Your task to perform on an android device: Search for bose soundlink mini on walmart, select the first entry, and add it to the cart. Image 0: 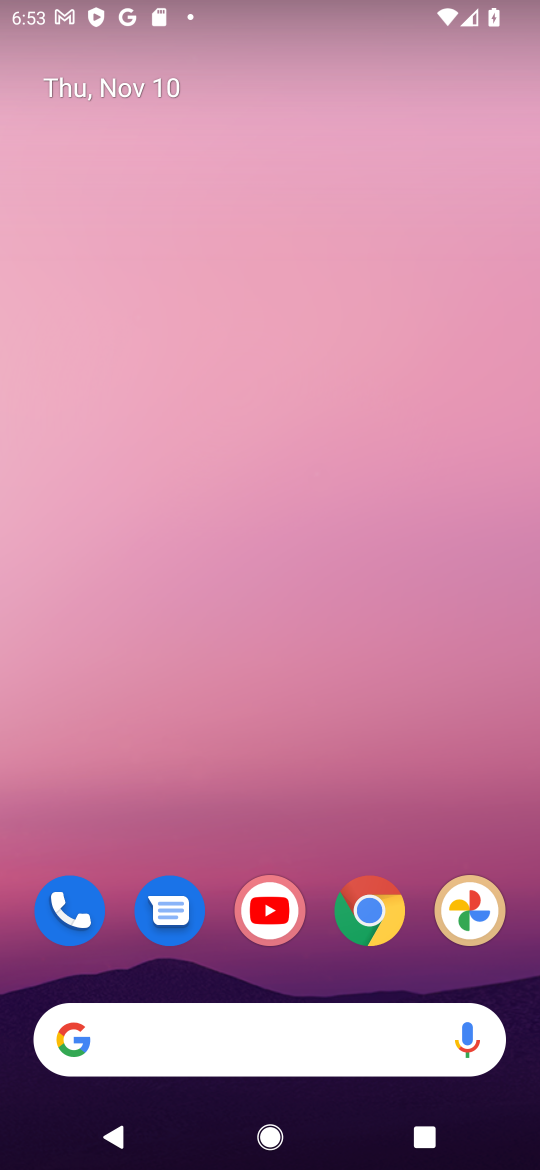
Step 0: click (369, 910)
Your task to perform on an android device: Search for bose soundlink mini on walmart, select the first entry, and add it to the cart. Image 1: 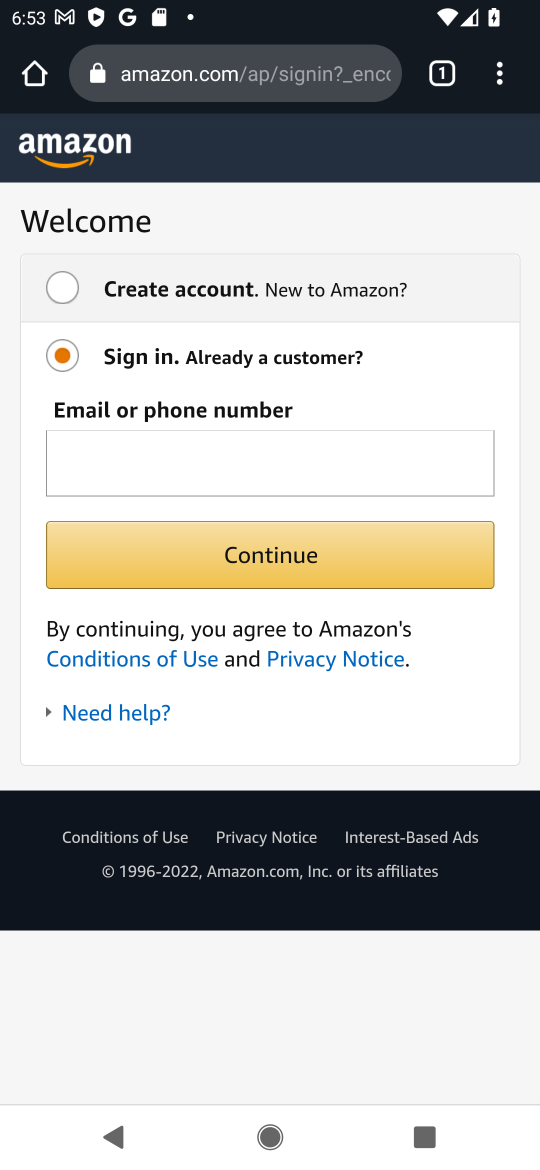
Step 1: click (349, 83)
Your task to perform on an android device: Search for bose soundlink mini on walmart, select the first entry, and add it to the cart. Image 2: 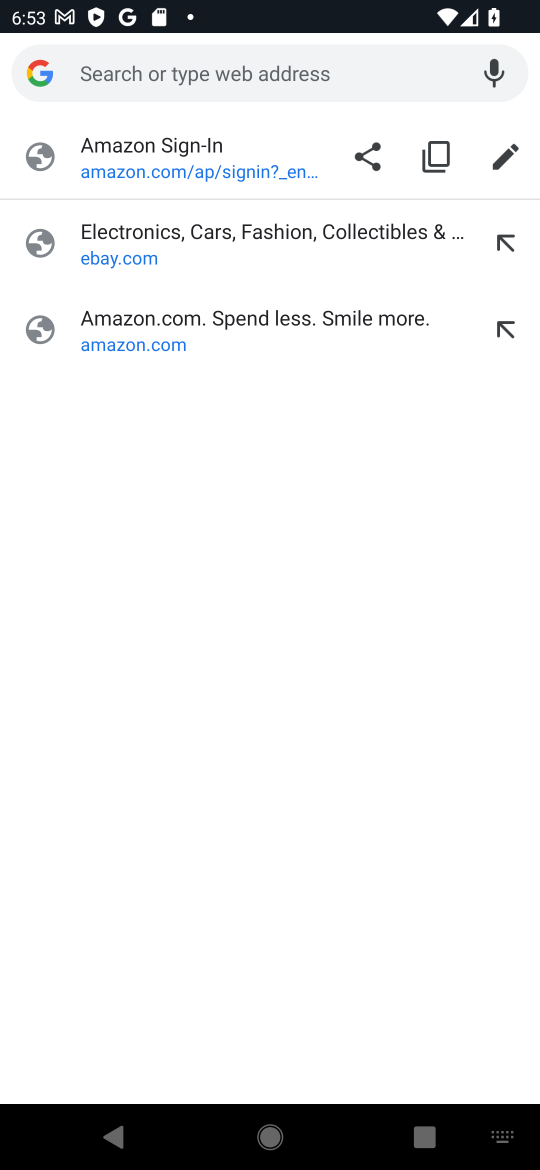
Step 2: type "walmart"
Your task to perform on an android device: Search for bose soundlink mini on walmart, select the first entry, and add it to the cart. Image 3: 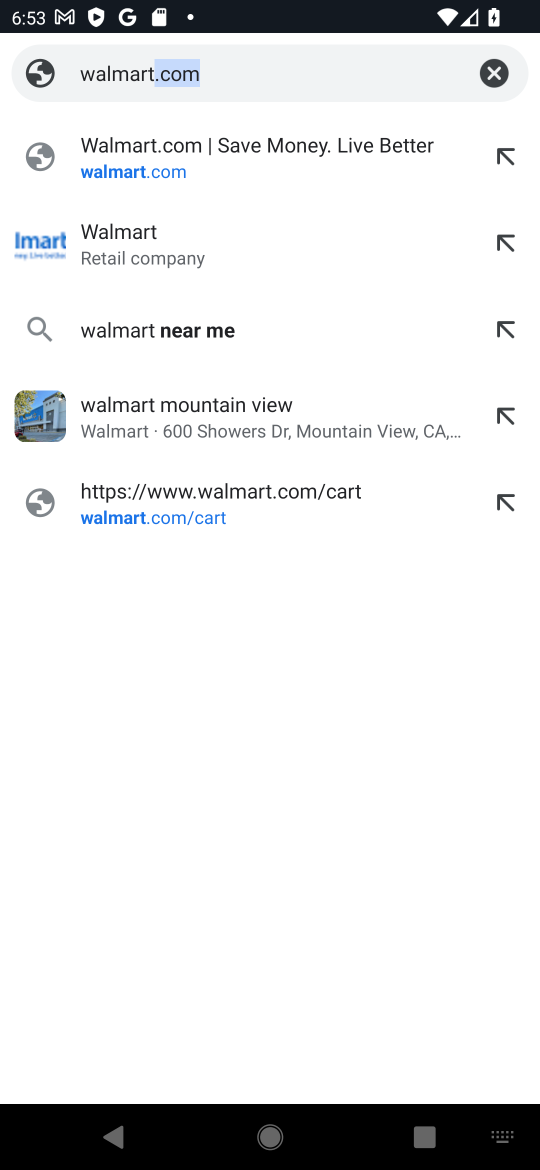
Step 3: click (167, 165)
Your task to perform on an android device: Search for bose soundlink mini on walmart, select the first entry, and add it to the cart. Image 4: 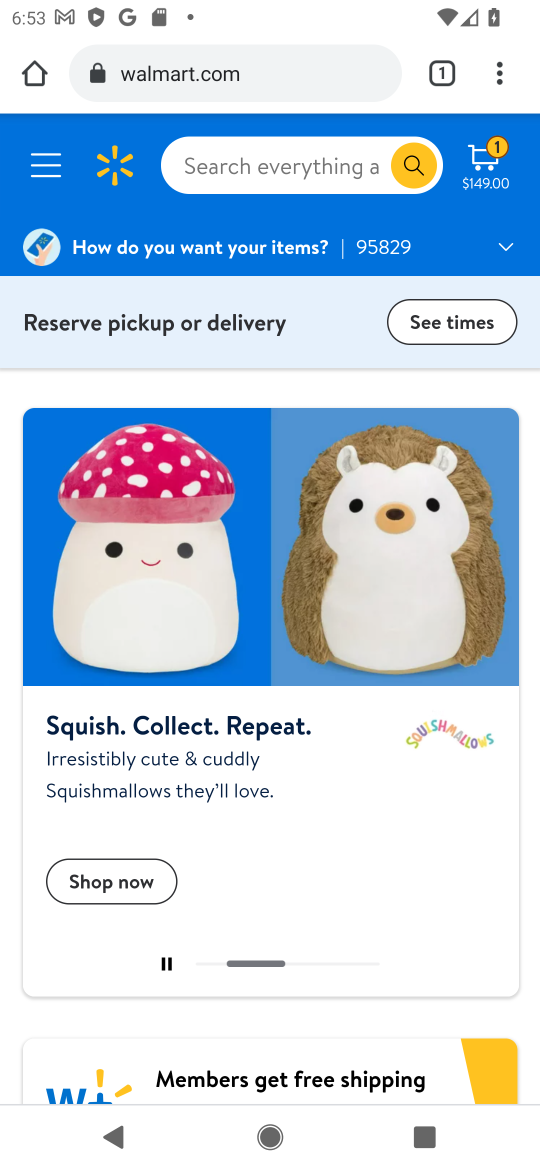
Step 4: click (258, 168)
Your task to perform on an android device: Search for bose soundlink mini on walmart, select the first entry, and add it to the cart. Image 5: 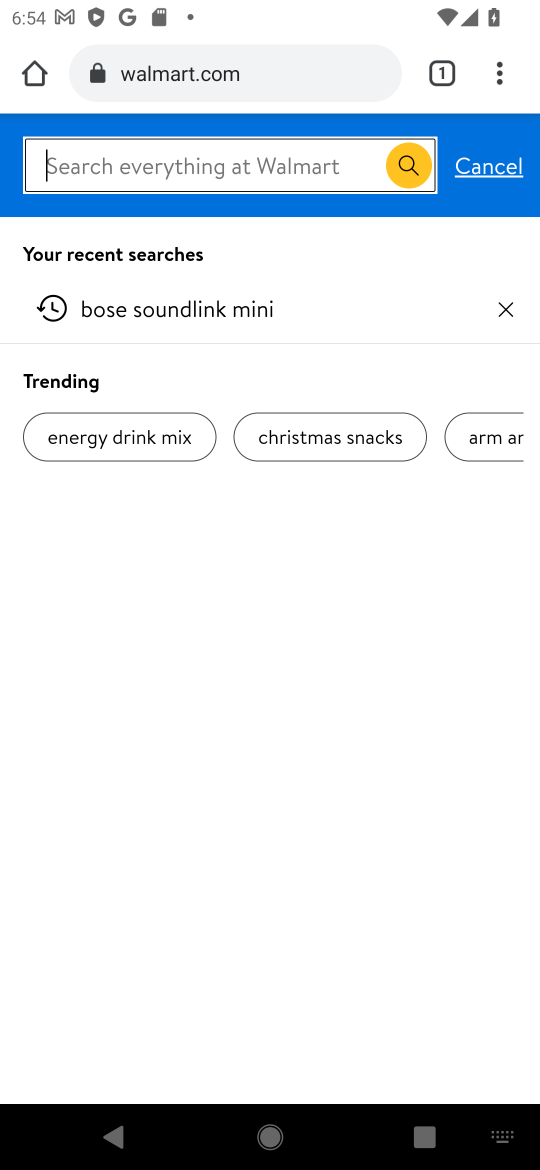
Step 5: type "bose soundlink mini "
Your task to perform on an android device: Search for bose soundlink mini on walmart, select the first entry, and add it to the cart. Image 6: 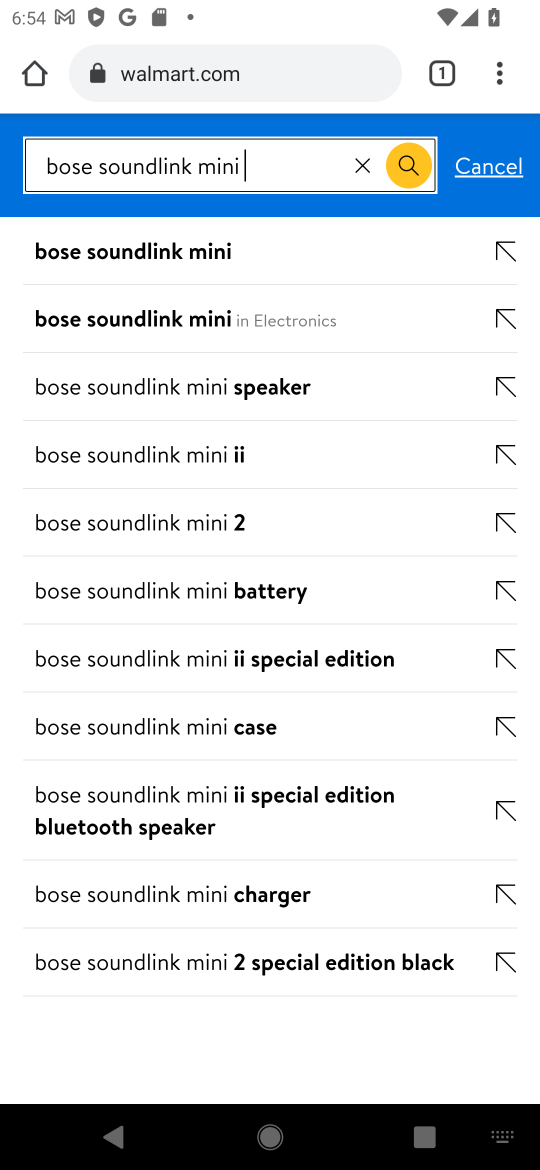
Step 6: click (174, 247)
Your task to perform on an android device: Search for bose soundlink mini on walmart, select the first entry, and add it to the cart. Image 7: 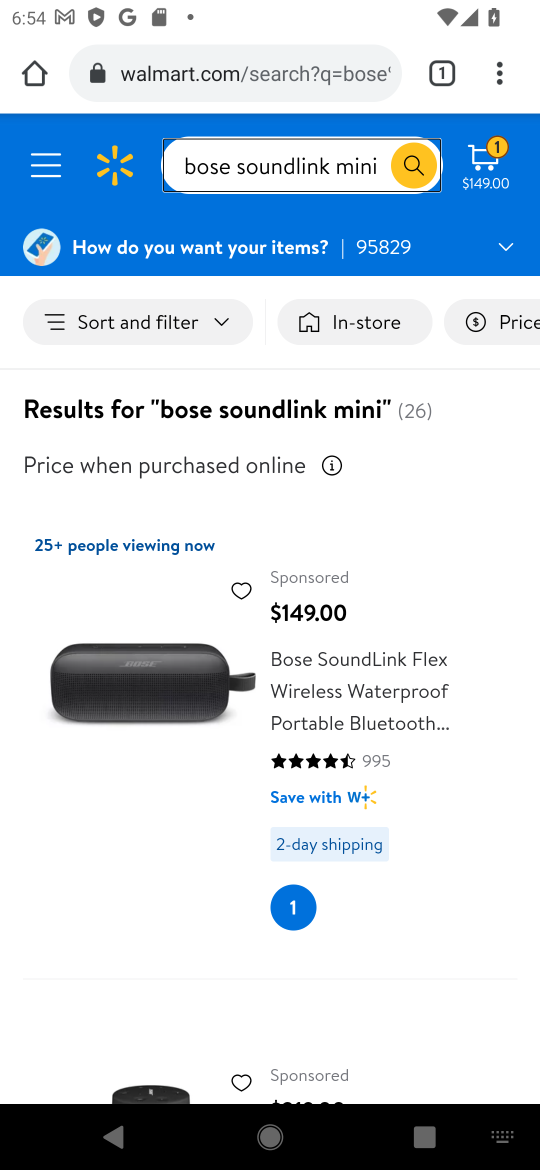
Step 7: click (382, 701)
Your task to perform on an android device: Search for bose soundlink mini on walmart, select the first entry, and add it to the cart. Image 8: 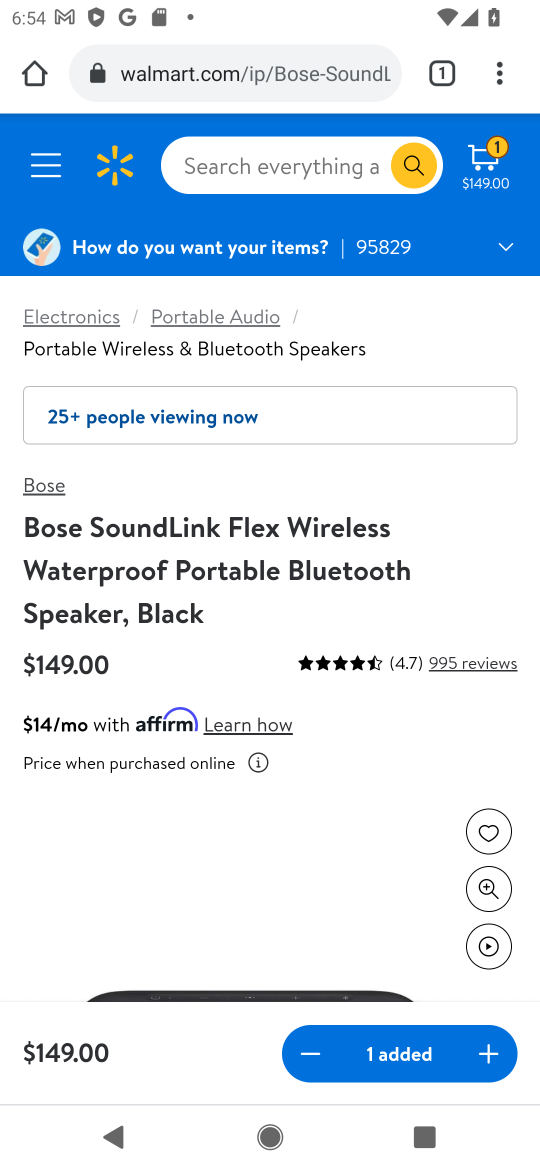
Step 8: click (373, 1059)
Your task to perform on an android device: Search for bose soundlink mini on walmart, select the first entry, and add it to the cart. Image 9: 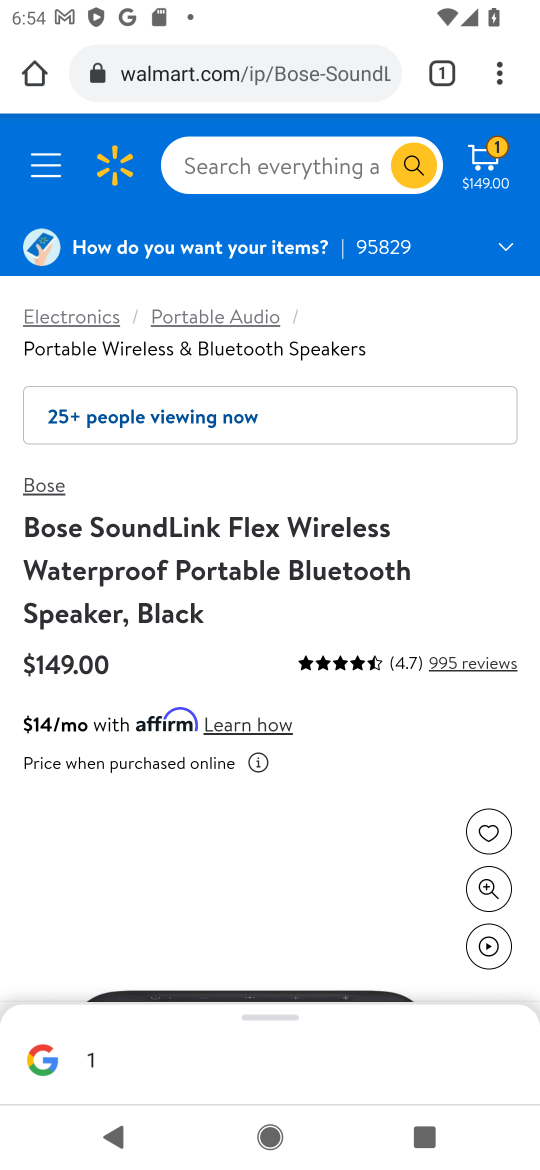
Step 9: click (392, 800)
Your task to perform on an android device: Search for bose soundlink mini on walmart, select the first entry, and add it to the cart. Image 10: 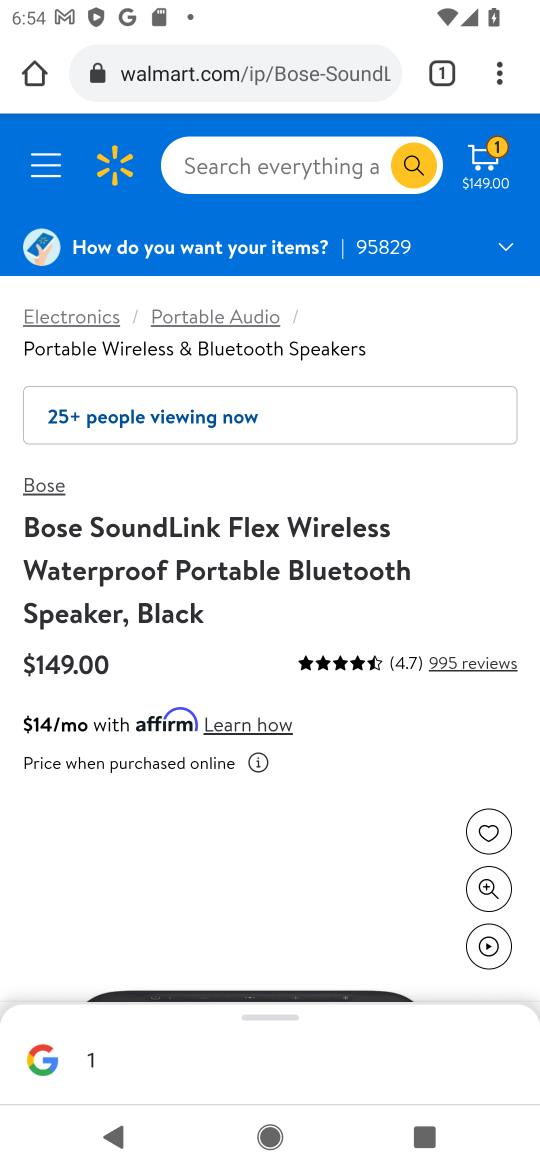
Step 10: click (392, 800)
Your task to perform on an android device: Search for bose soundlink mini on walmart, select the first entry, and add it to the cart. Image 11: 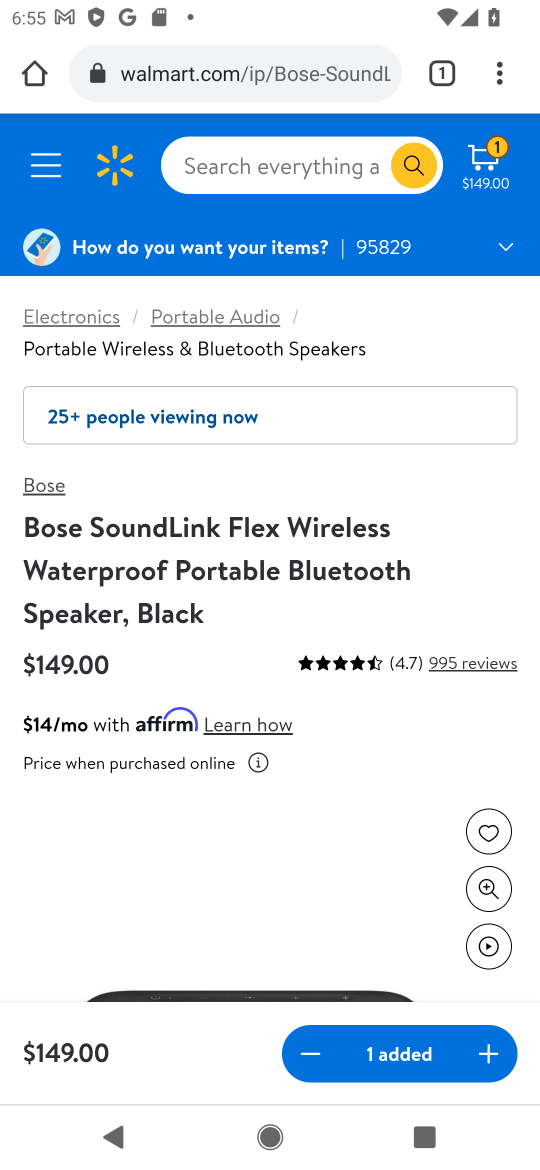
Step 11: click (411, 1051)
Your task to perform on an android device: Search for bose soundlink mini on walmart, select the first entry, and add it to the cart. Image 12: 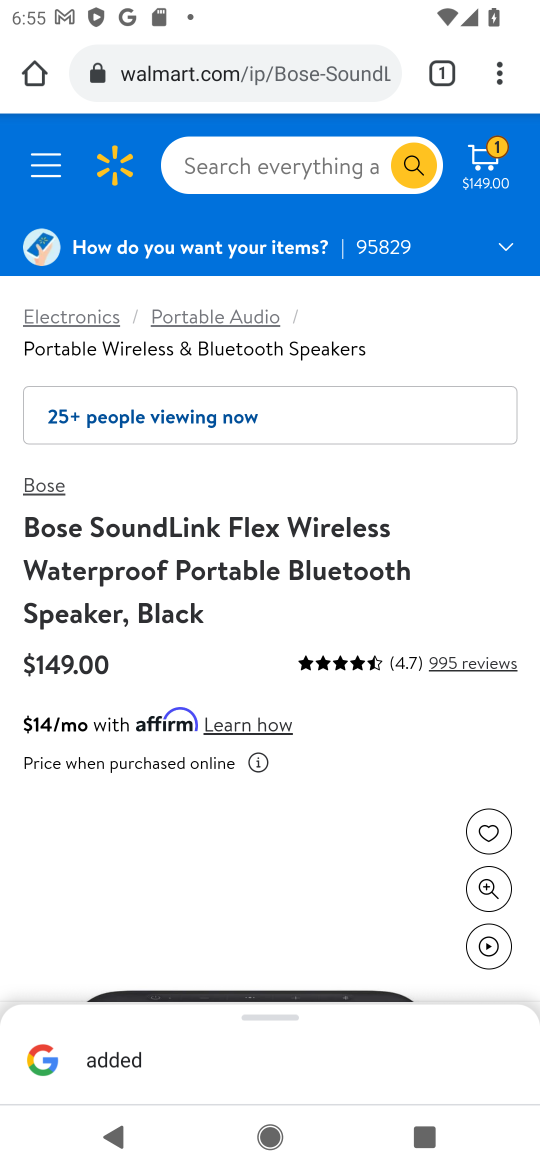
Step 12: task complete